Your task to perform on an android device: Go to CNN.com Image 0: 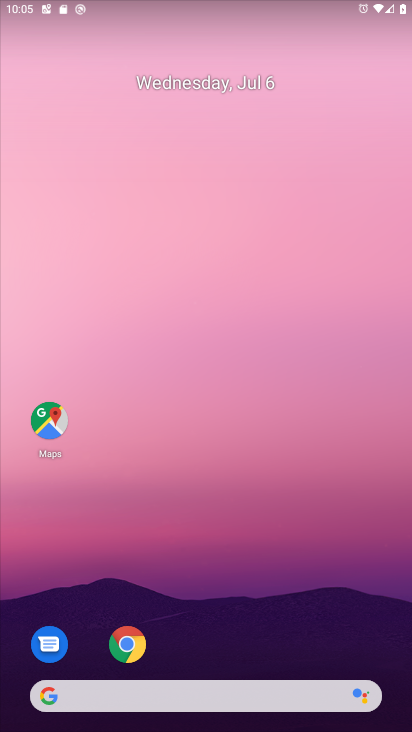
Step 0: drag from (243, 666) to (195, 242)
Your task to perform on an android device: Go to CNN.com Image 1: 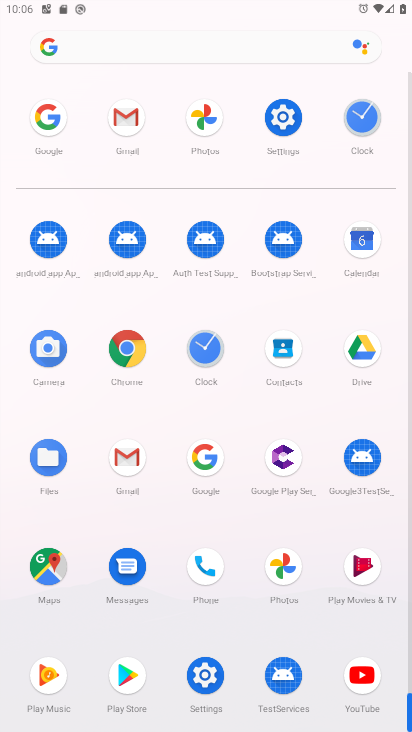
Step 1: click (144, 363)
Your task to perform on an android device: Go to CNN.com Image 2: 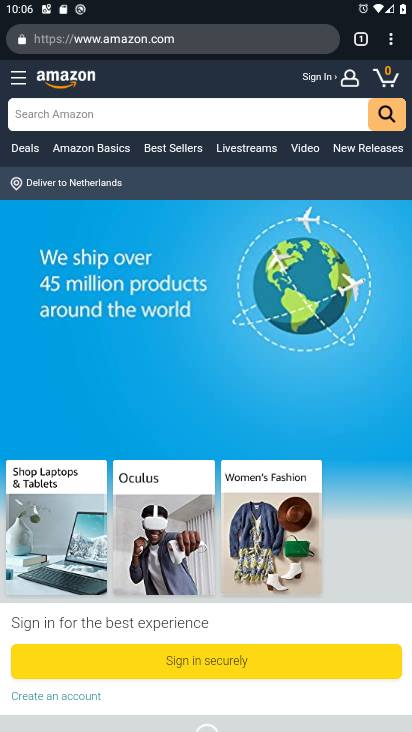
Step 2: click (224, 40)
Your task to perform on an android device: Go to CNN.com Image 3: 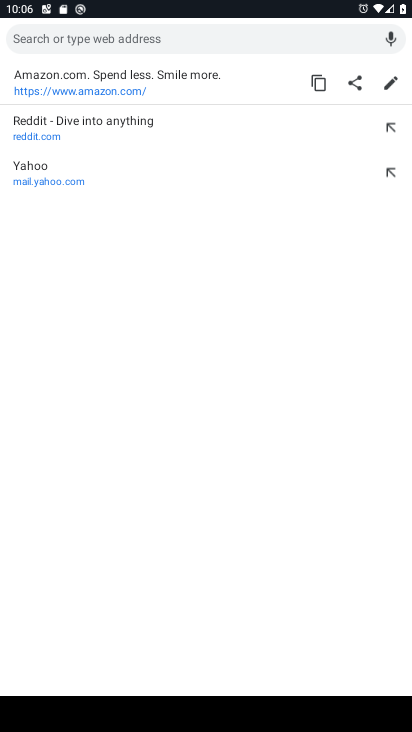
Step 3: type "cnn.com"
Your task to perform on an android device: Go to CNN.com Image 4: 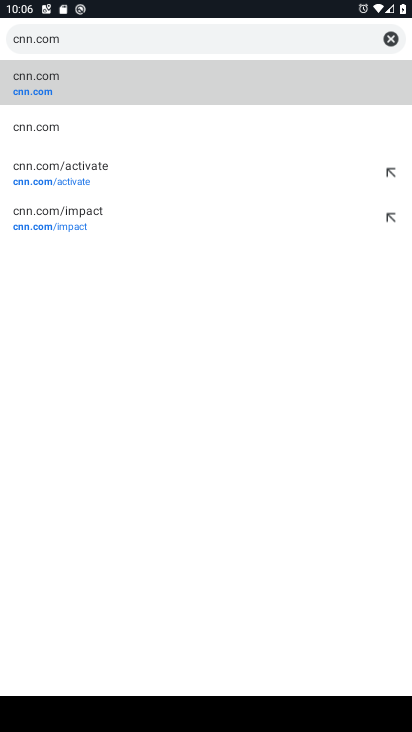
Step 4: click (166, 91)
Your task to perform on an android device: Go to CNN.com Image 5: 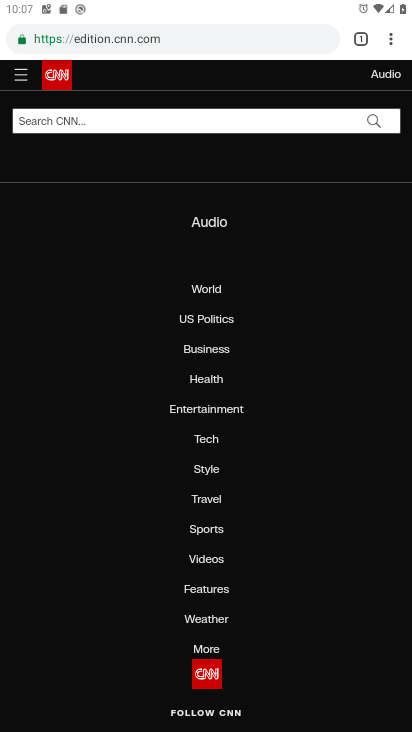
Step 5: task complete